Your task to perform on an android device: Search for pizza restaurants on Maps Image 0: 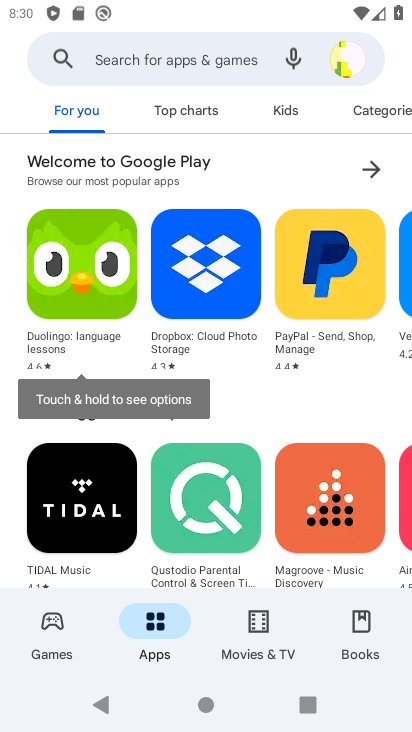
Step 0: press home button
Your task to perform on an android device: Search for pizza restaurants on Maps Image 1: 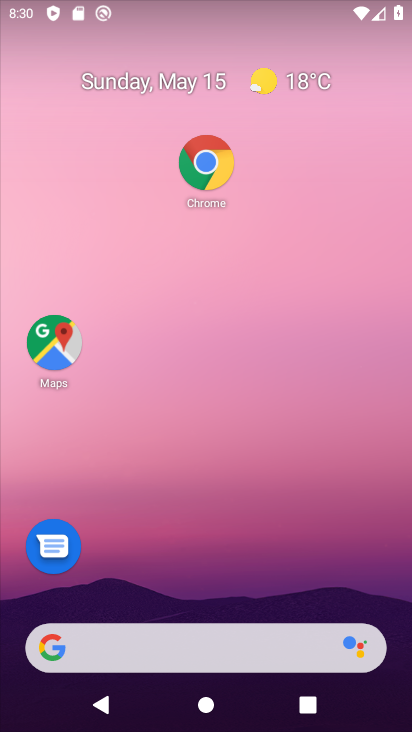
Step 1: drag from (308, 505) to (345, 214)
Your task to perform on an android device: Search for pizza restaurants on Maps Image 2: 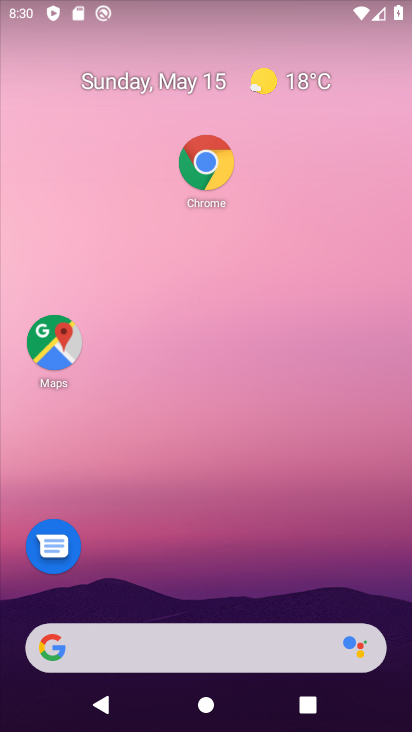
Step 2: drag from (254, 624) to (342, 183)
Your task to perform on an android device: Search for pizza restaurants on Maps Image 3: 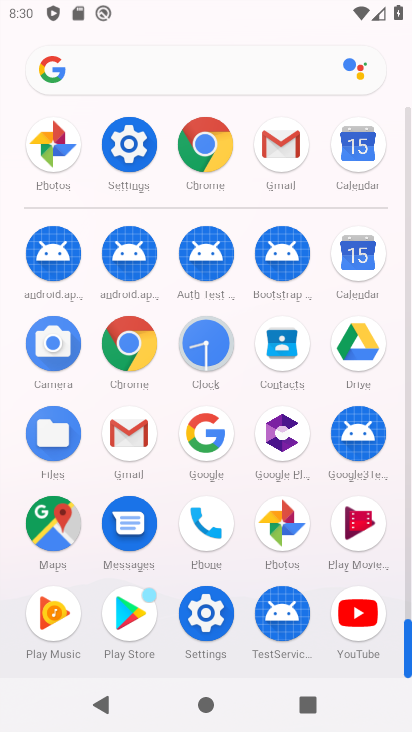
Step 3: click (41, 518)
Your task to perform on an android device: Search for pizza restaurants on Maps Image 4: 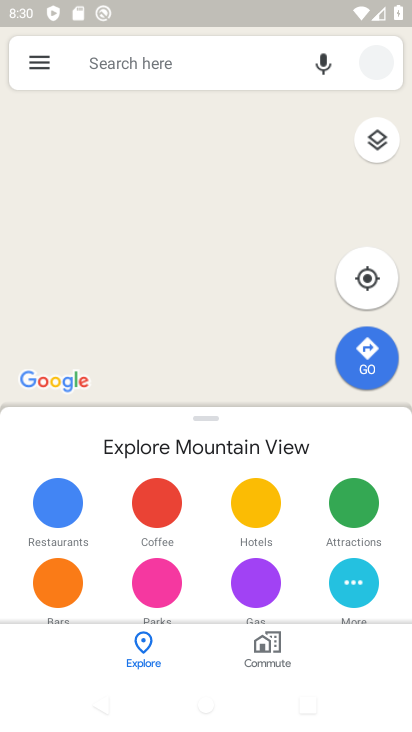
Step 4: click (163, 52)
Your task to perform on an android device: Search for pizza restaurants on Maps Image 5: 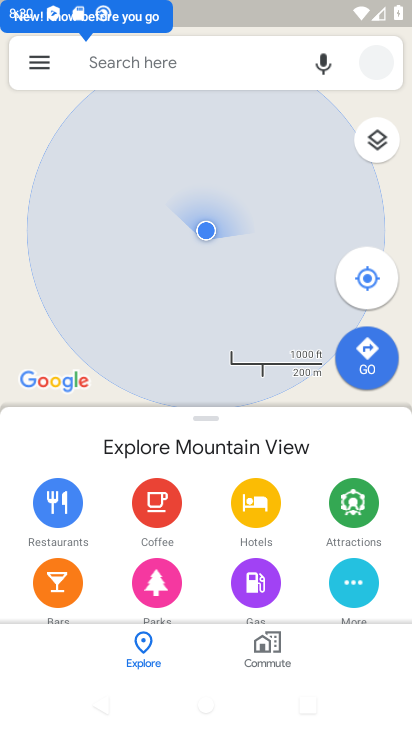
Step 5: click (163, 63)
Your task to perform on an android device: Search for pizza restaurants on Maps Image 6: 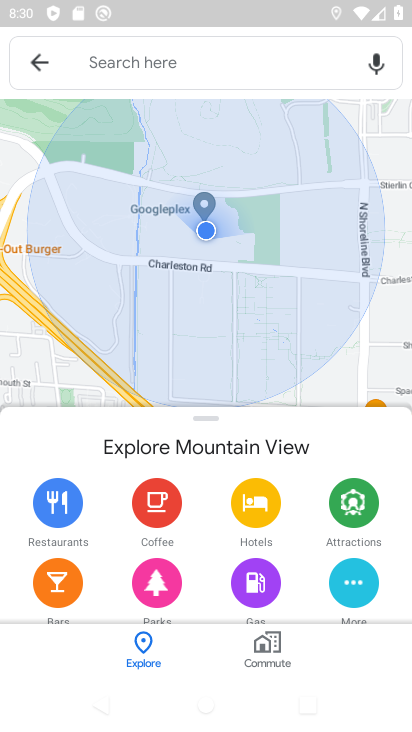
Step 6: click (183, 64)
Your task to perform on an android device: Search for pizza restaurants on Maps Image 7: 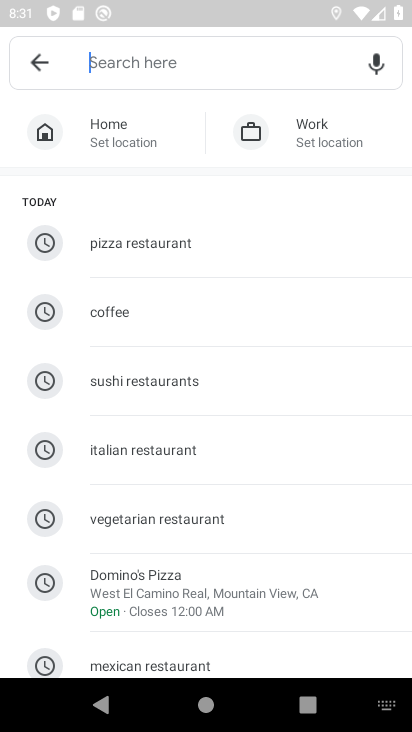
Step 7: click (165, 234)
Your task to perform on an android device: Search for pizza restaurants on Maps Image 8: 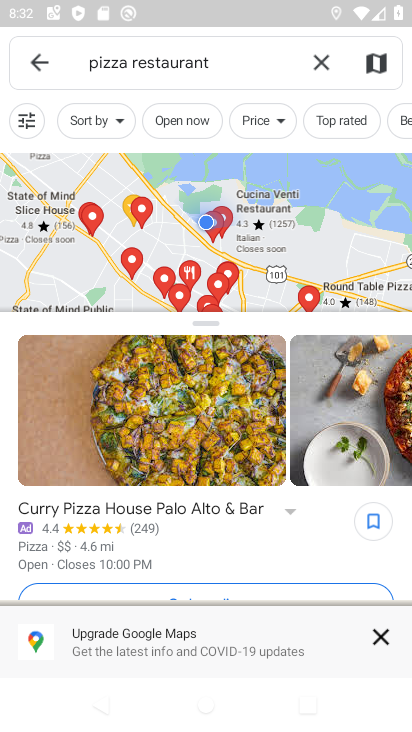
Step 8: task complete